Your task to perform on an android device: Open the calendar app, open the side menu, and click the "Day" option Image 0: 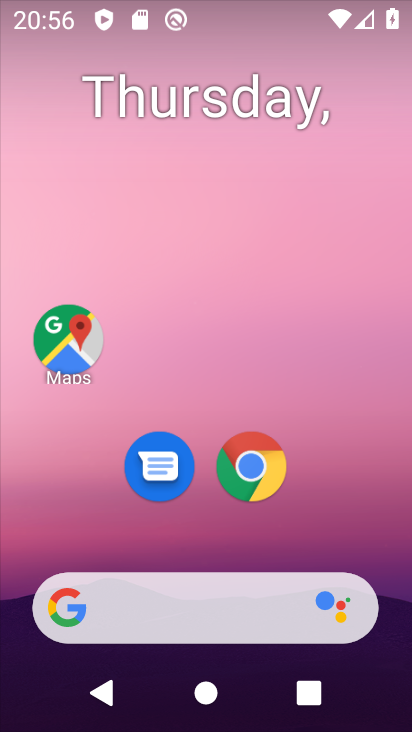
Step 0: drag from (202, 560) to (254, 0)
Your task to perform on an android device: Open the calendar app, open the side menu, and click the "Day" option Image 1: 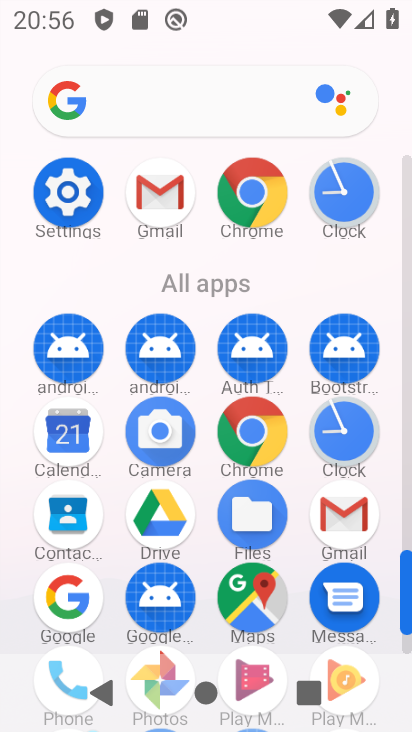
Step 1: click (72, 440)
Your task to perform on an android device: Open the calendar app, open the side menu, and click the "Day" option Image 2: 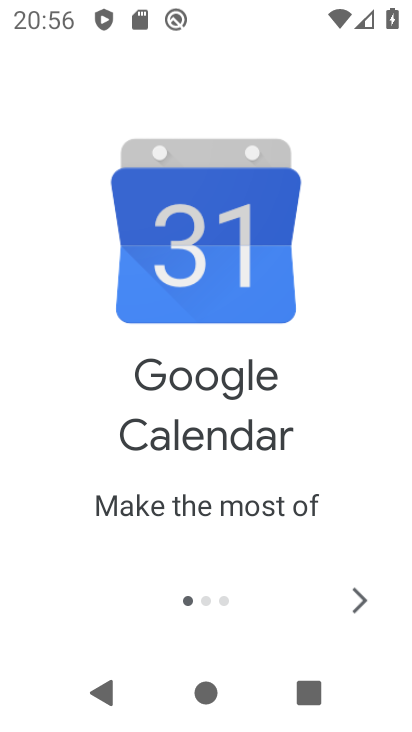
Step 2: click (350, 596)
Your task to perform on an android device: Open the calendar app, open the side menu, and click the "Day" option Image 3: 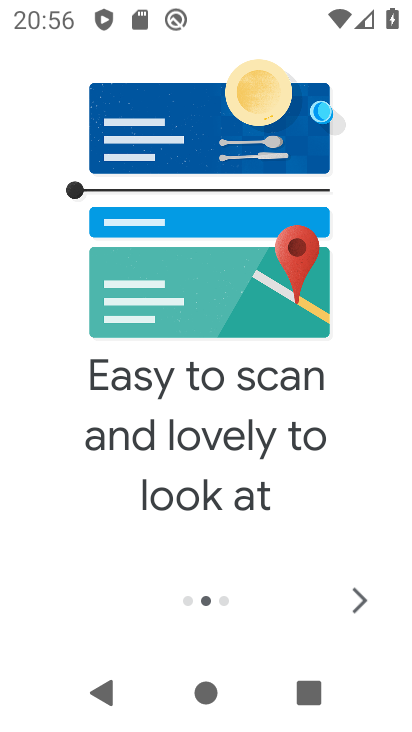
Step 3: click (357, 592)
Your task to perform on an android device: Open the calendar app, open the side menu, and click the "Day" option Image 4: 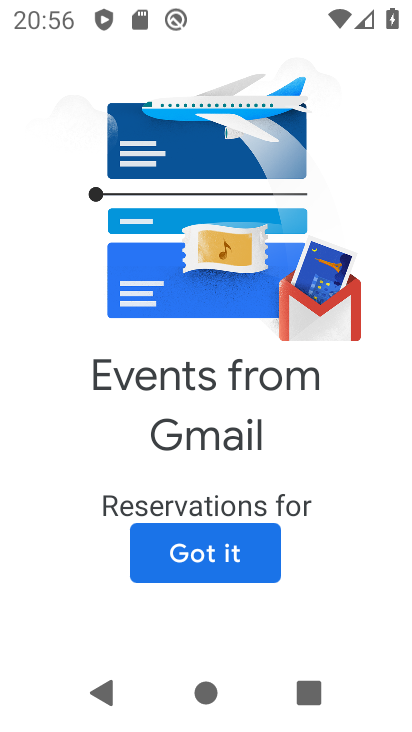
Step 4: click (191, 560)
Your task to perform on an android device: Open the calendar app, open the side menu, and click the "Day" option Image 5: 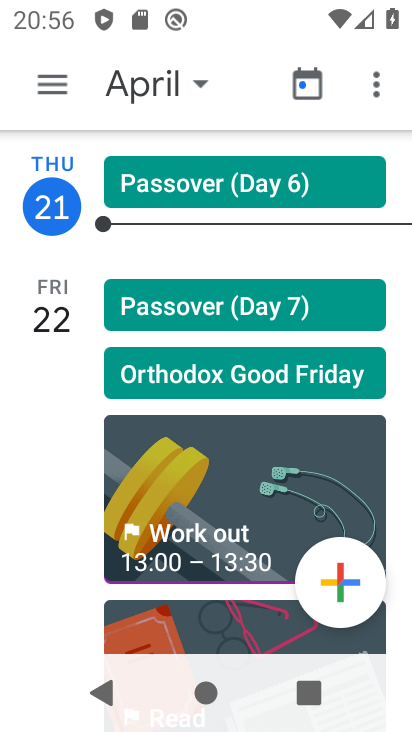
Step 5: click (53, 75)
Your task to perform on an android device: Open the calendar app, open the side menu, and click the "Day" option Image 6: 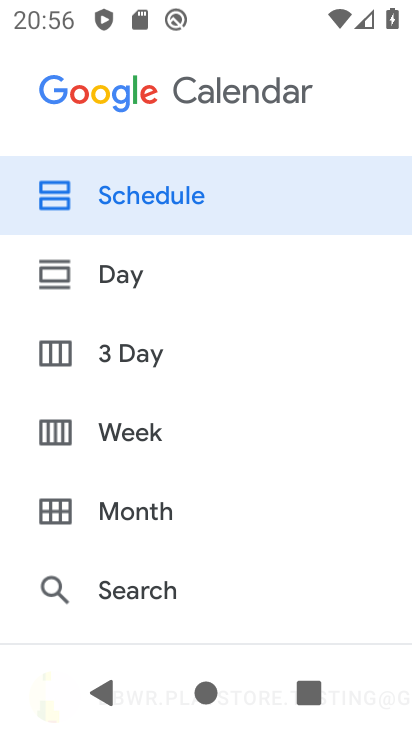
Step 6: click (136, 279)
Your task to perform on an android device: Open the calendar app, open the side menu, and click the "Day" option Image 7: 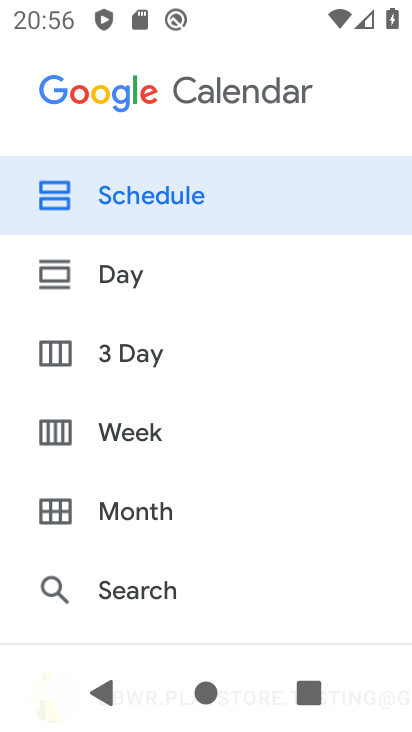
Step 7: click (78, 270)
Your task to perform on an android device: Open the calendar app, open the side menu, and click the "Day" option Image 8: 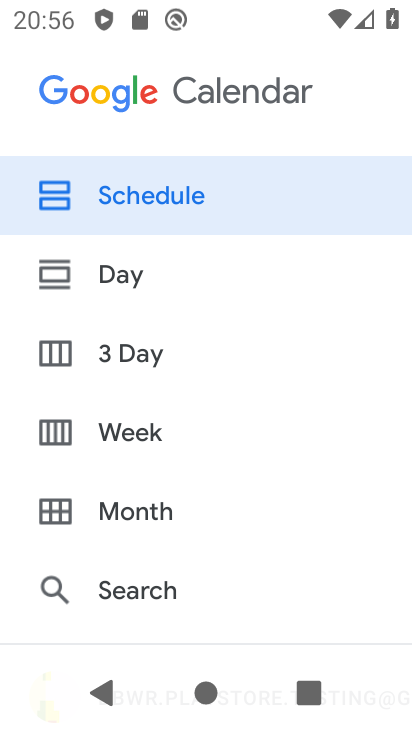
Step 8: click (116, 272)
Your task to perform on an android device: Open the calendar app, open the side menu, and click the "Day" option Image 9: 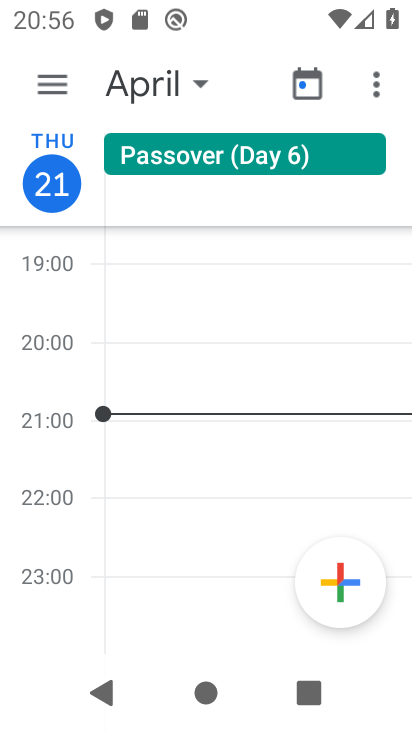
Step 9: task complete